Your task to perform on an android device: Find coffee shops on Maps Image 0: 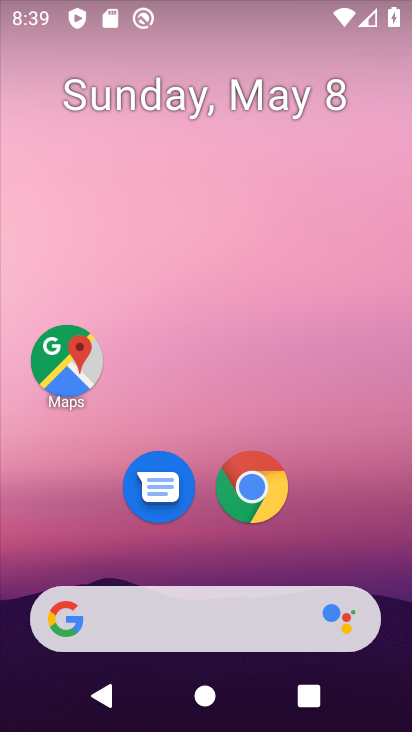
Step 0: click (183, 556)
Your task to perform on an android device: Find coffee shops on Maps Image 1: 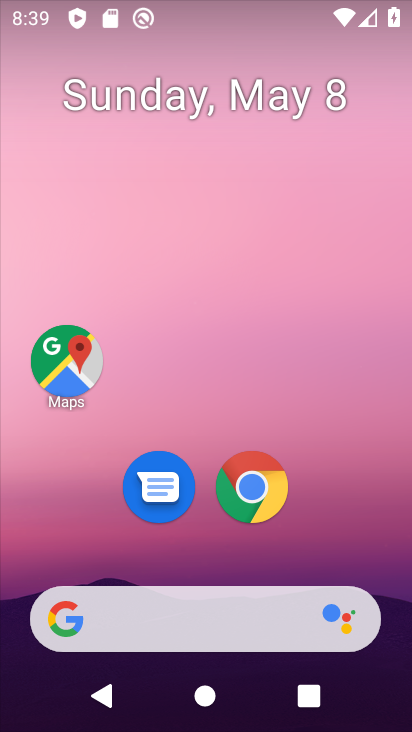
Step 1: click (73, 379)
Your task to perform on an android device: Find coffee shops on Maps Image 2: 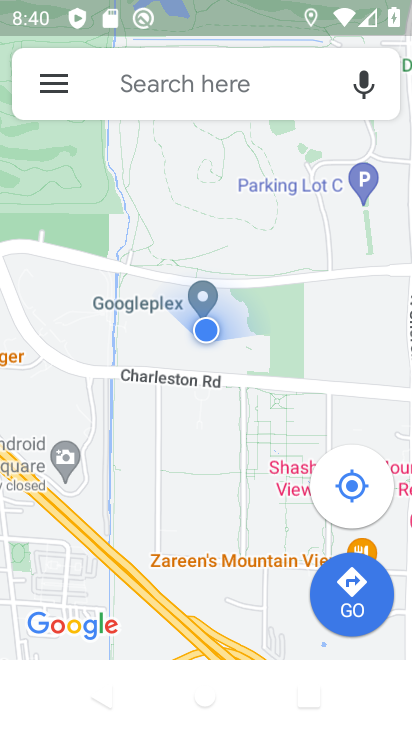
Step 2: click (108, 81)
Your task to perform on an android device: Find coffee shops on Maps Image 3: 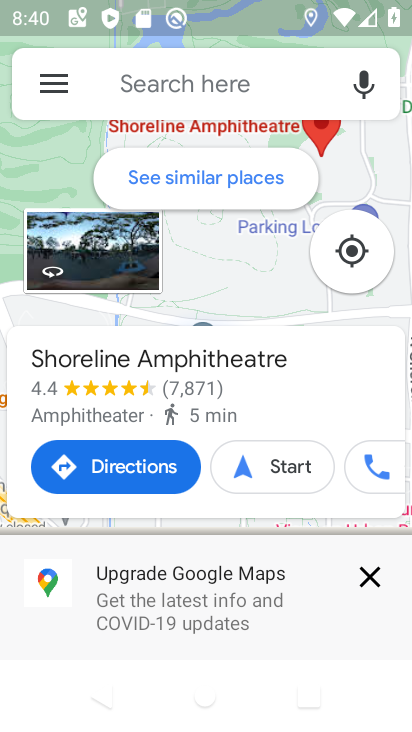
Step 3: click (199, 90)
Your task to perform on an android device: Find coffee shops on Maps Image 4: 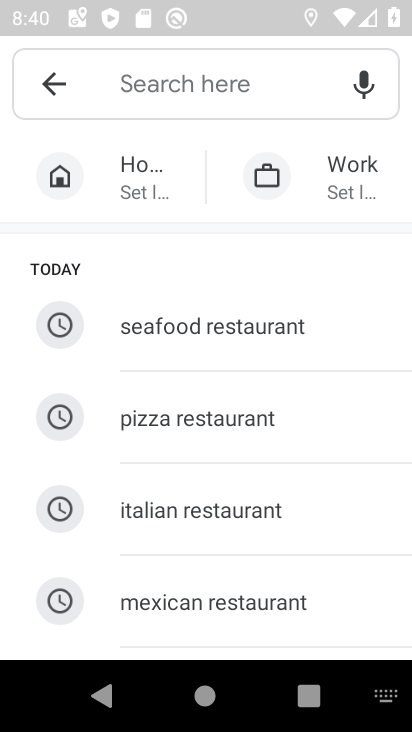
Step 4: type "coffee shops"
Your task to perform on an android device: Find coffee shops on Maps Image 5: 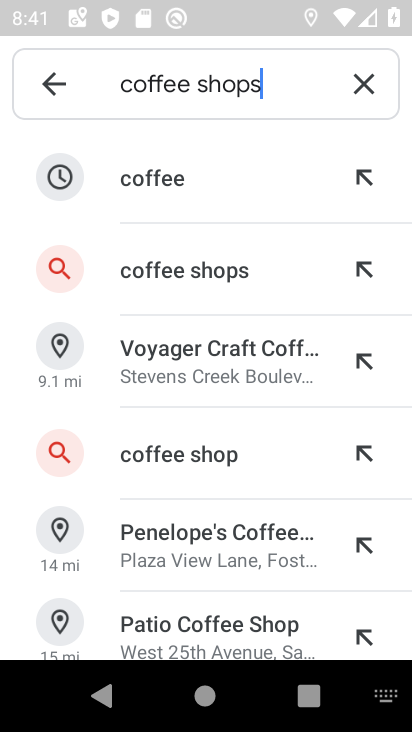
Step 5: click (222, 266)
Your task to perform on an android device: Find coffee shops on Maps Image 6: 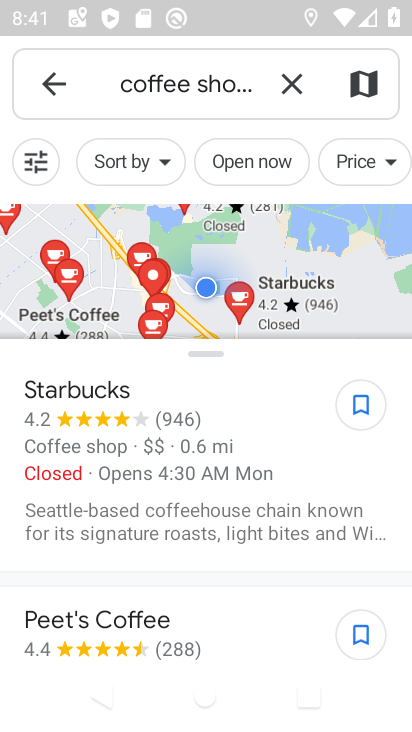
Step 6: task complete